Your task to perform on an android device: open a bookmark in the chrome app Image 0: 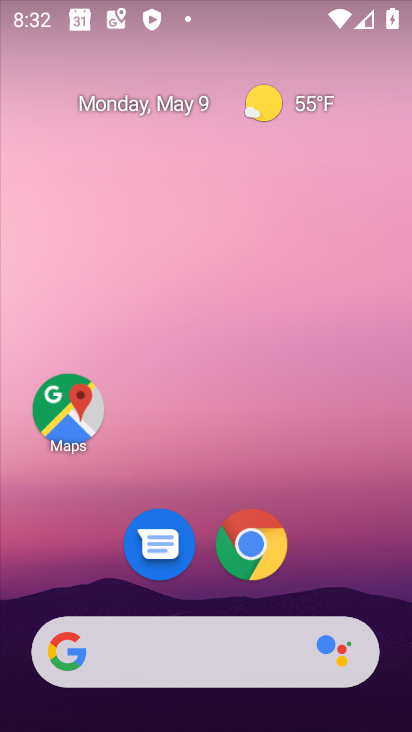
Step 0: click (241, 565)
Your task to perform on an android device: open a bookmark in the chrome app Image 1: 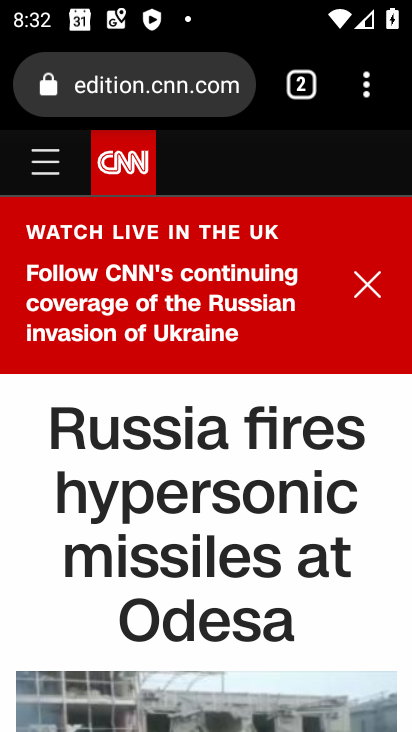
Step 1: drag from (365, 82) to (90, 328)
Your task to perform on an android device: open a bookmark in the chrome app Image 2: 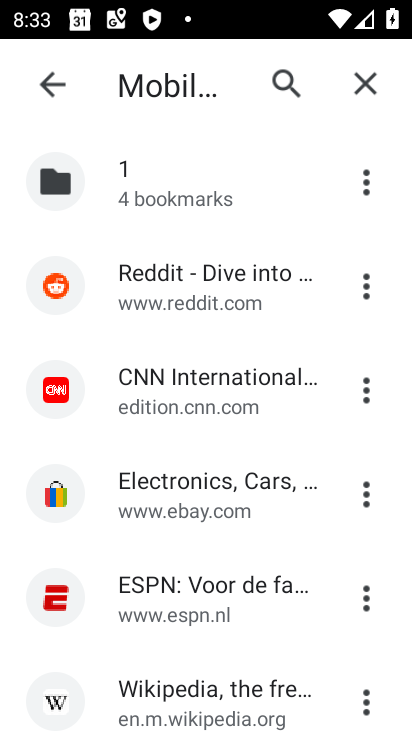
Step 2: click (143, 362)
Your task to perform on an android device: open a bookmark in the chrome app Image 3: 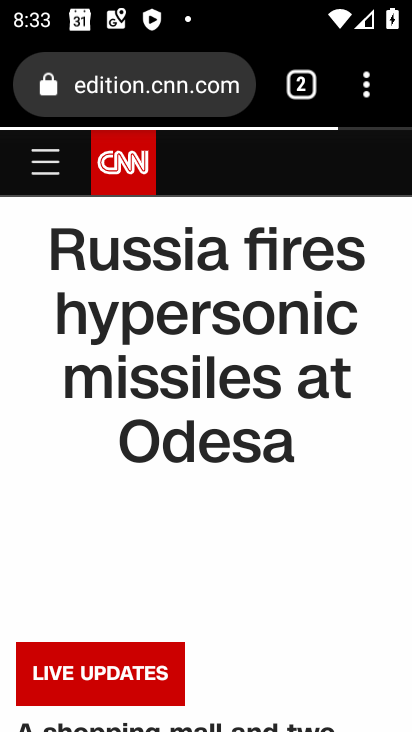
Step 3: task complete